Your task to perform on an android device: Go to sound settings Image 0: 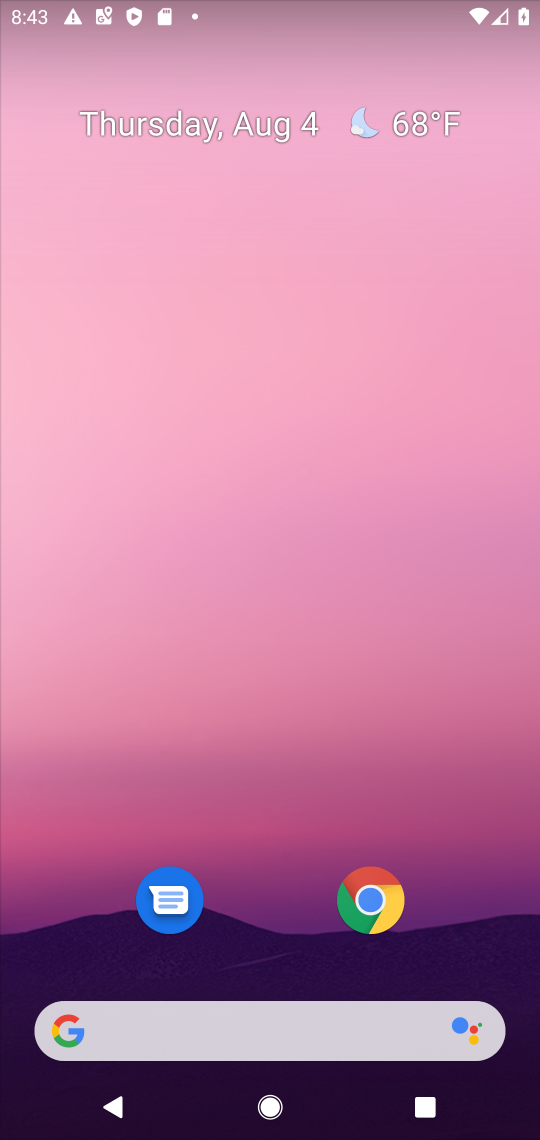
Step 0: drag from (249, 569) to (259, 39)
Your task to perform on an android device: Go to sound settings Image 1: 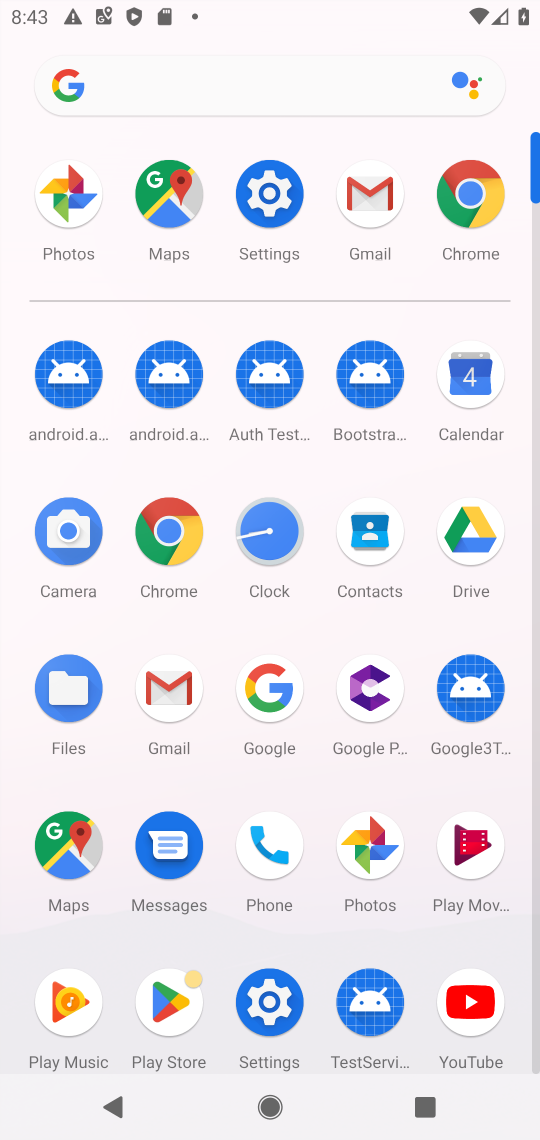
Step 1: click (279, 198)
Your task to perform on an android device: Go to sound settings Image 2: 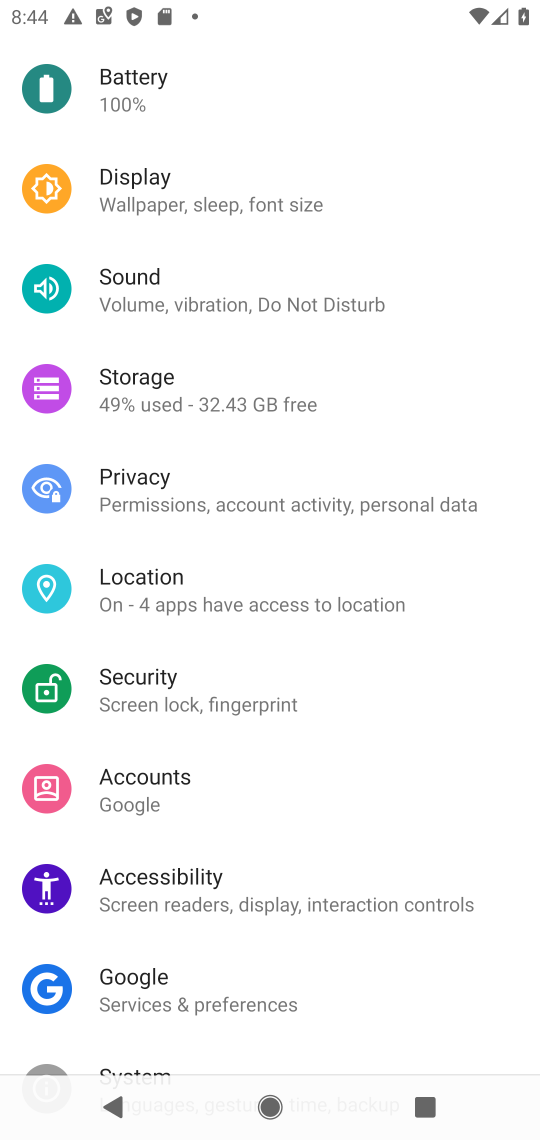
Step 2: click (130, 275)
Your task to perform on an android device: Go to sound settings Image 3: 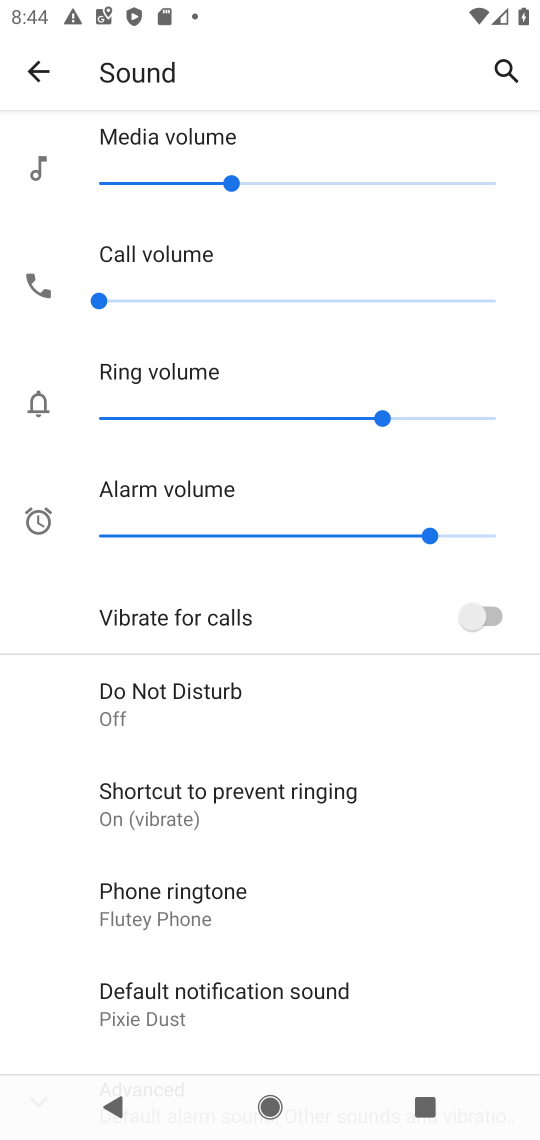
Step 3: task complete